Your task to perform on an android device: find snoozed emails in the gmail app Image 0: 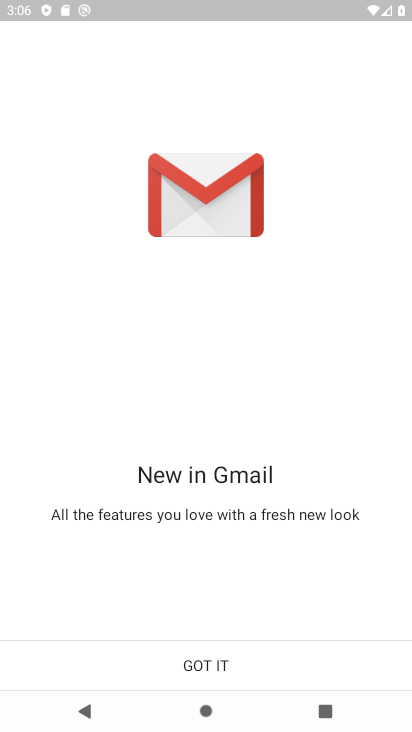
Step 0: press home button
Your task to perform on an android device: find snoozed emails in the gmail app Image 1: 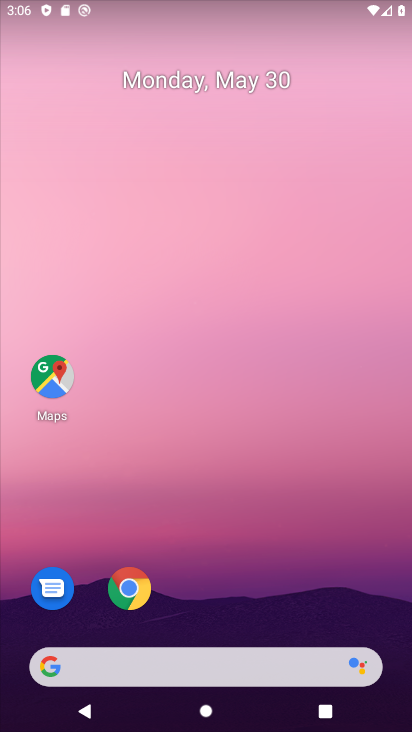
Step 1: drag from (356, 609) to (327, 113)
Your task to perform on an android device: find snoozed emails in the gmail app Image 2: 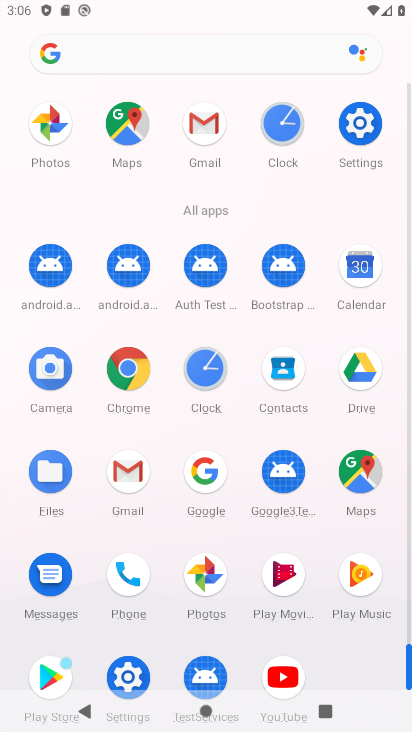
Step 2: click (128, 472)
Your task to perform on an android device: find snoozed emails in the gmail app Image 3: 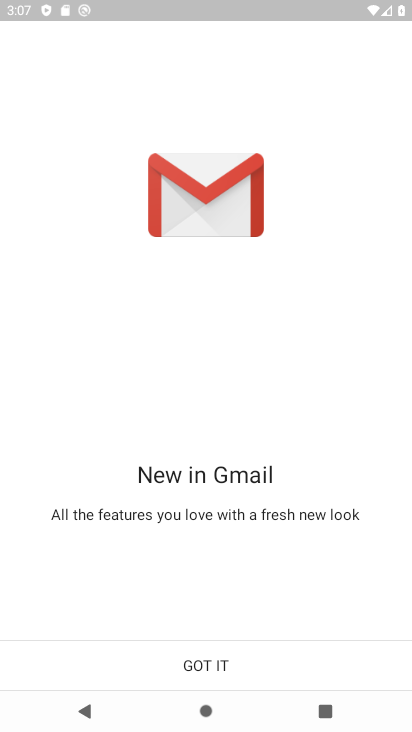
Step 3: click (188, 664)
Your task to perform on an android device: find snoozed emails in the gmail app Image 4: 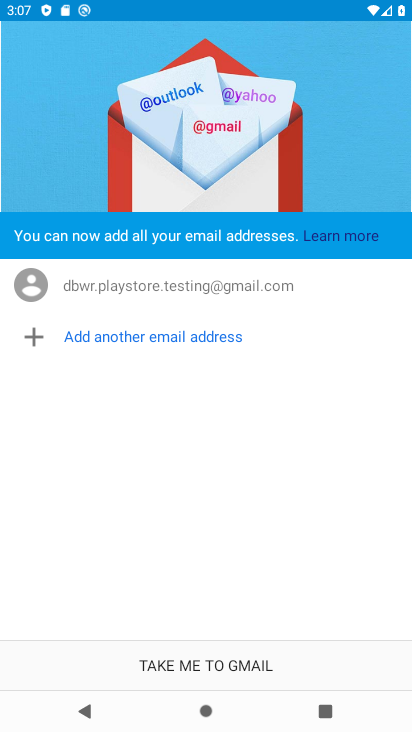
Step 4: click (188, 664)
Your task to perform on an android device: find snoozed emails in the gmail app Image 5: 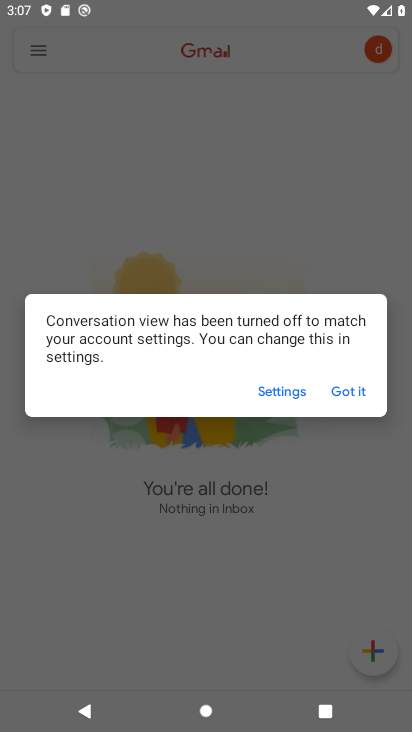
Step 5: click (350, 389)
Your task to perform on an android device: find snoozed emails in the gmail app Image 6: 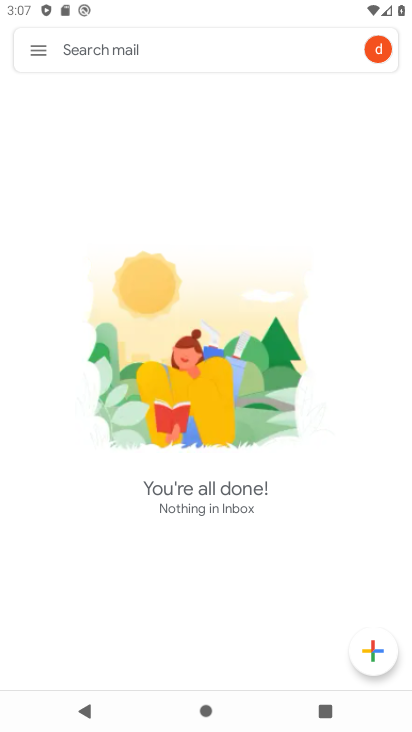
Step 6: click (38, 50)
Your task to perform on an android device: find snoozed emails in the gmail app Image 7: 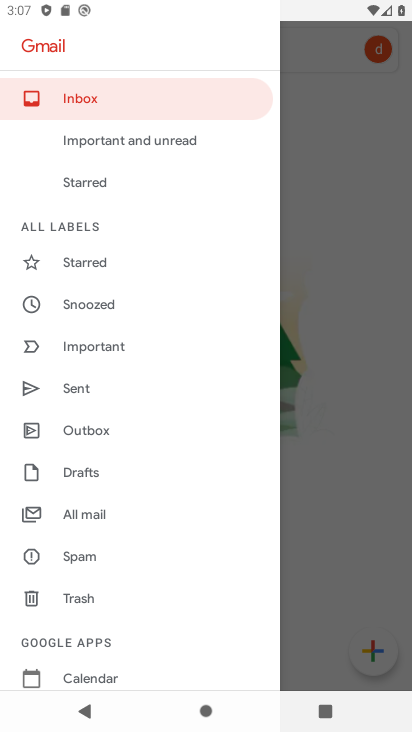
Step 7: click (96, 302)
Your task to perform on an android device: find snoozed emails in the gmail app Image 8: 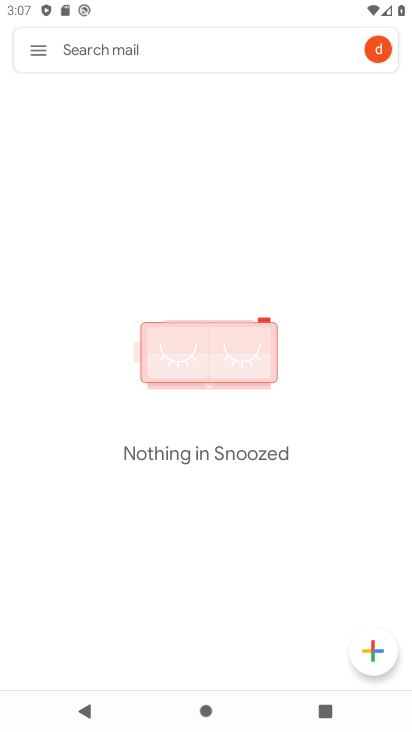
Step 8: task complete